Your task to perform on an android device: star an email in the gmail app Image 0: 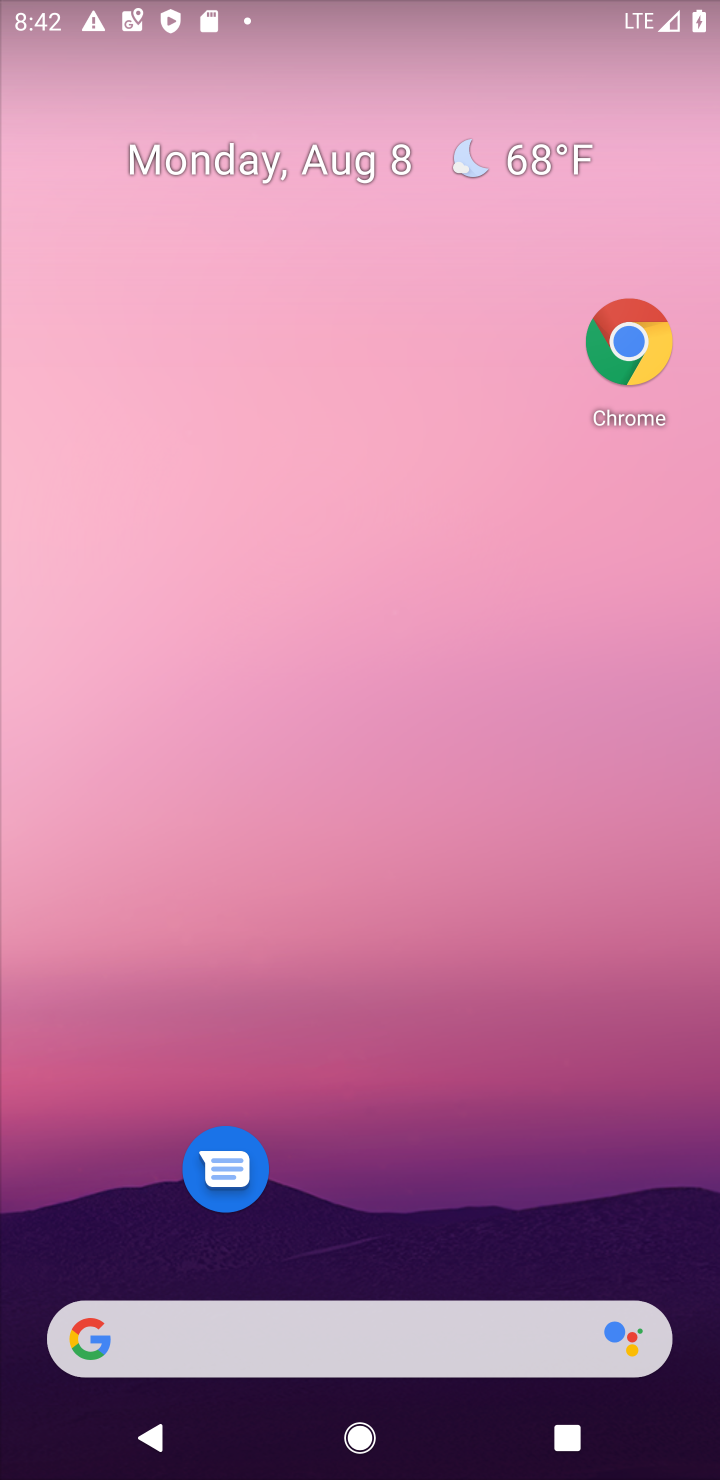
Step 0: drag from (344, 1102) to (344, 294)
Your task to perform on an android device: star an email in the gmail app Image 1: 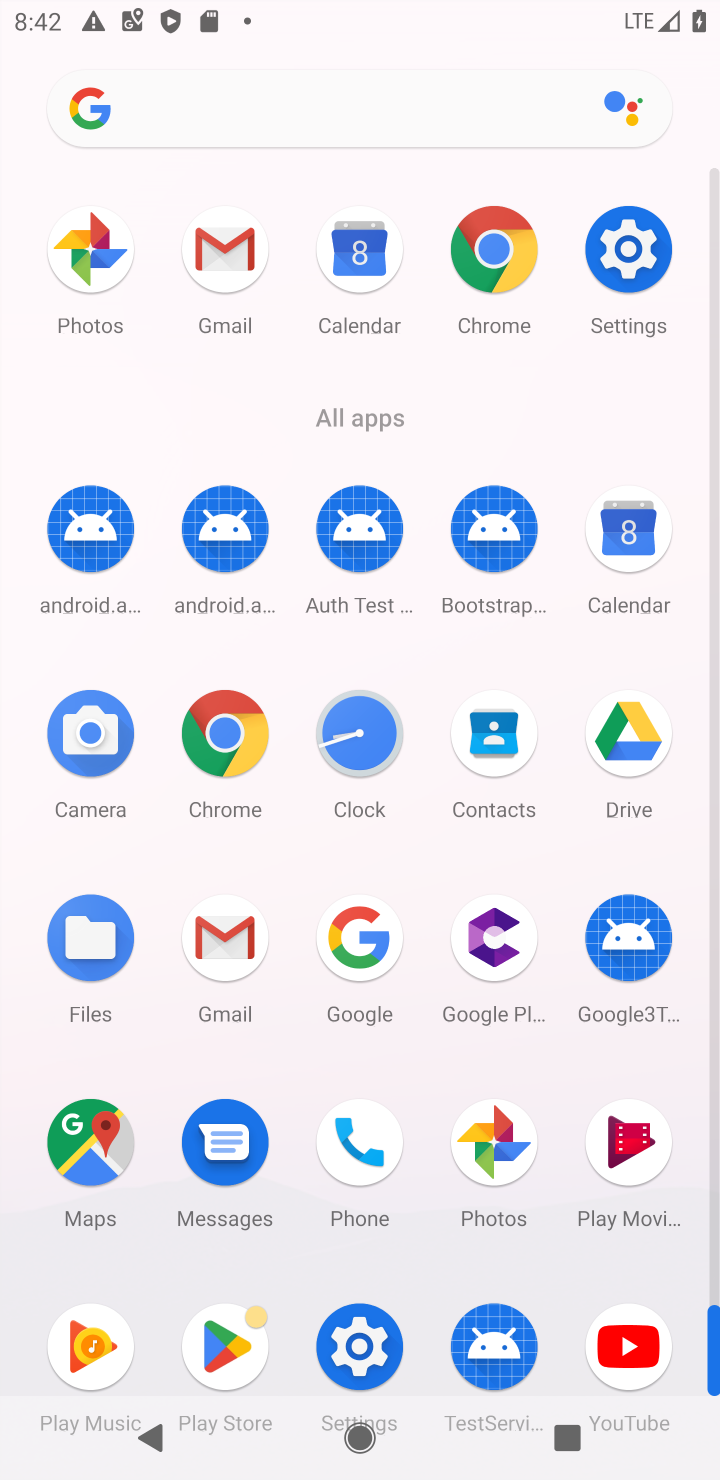
Step 1: click (212, 251)
Your task to perform on an android device: star an email in the gmail app Image 2: 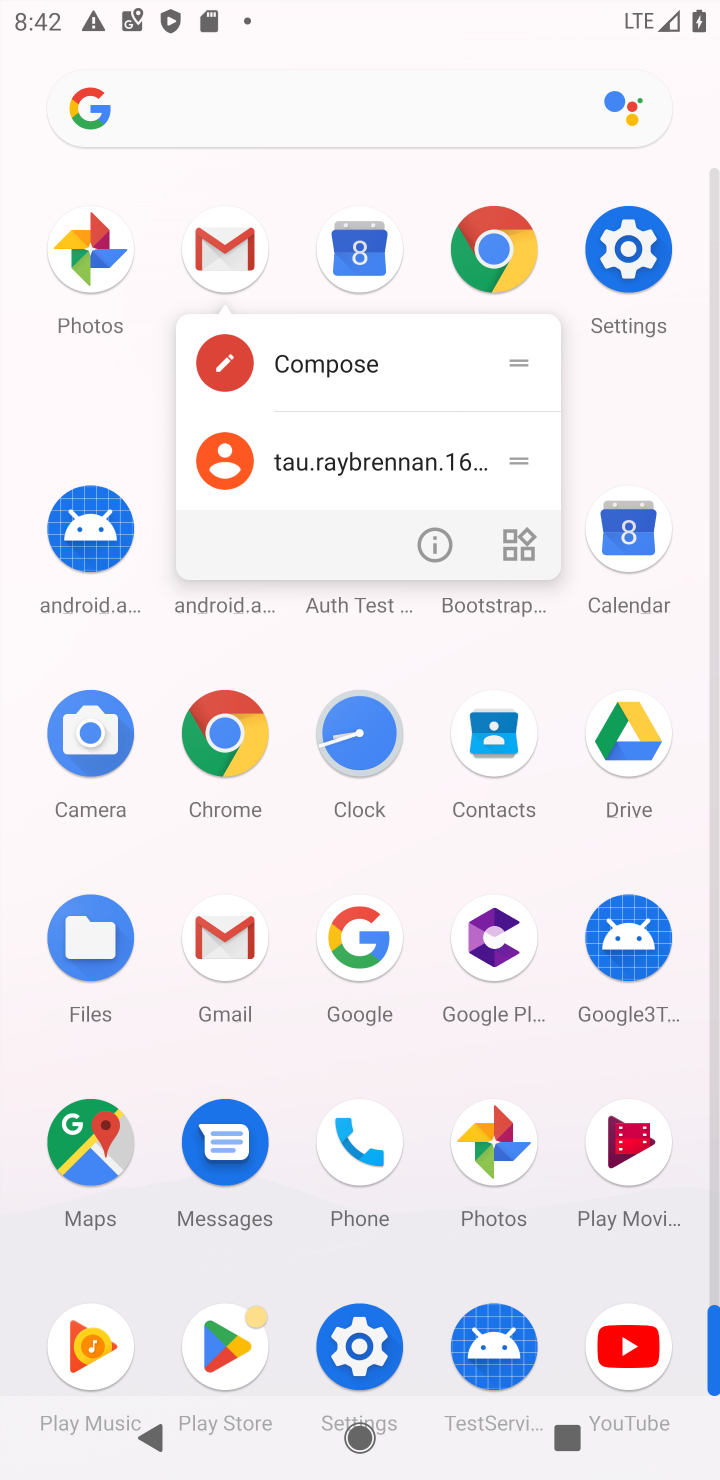
Step 2: click (223, 238)
Your task to perform on an android device: star an email in the gmail app Image 3: 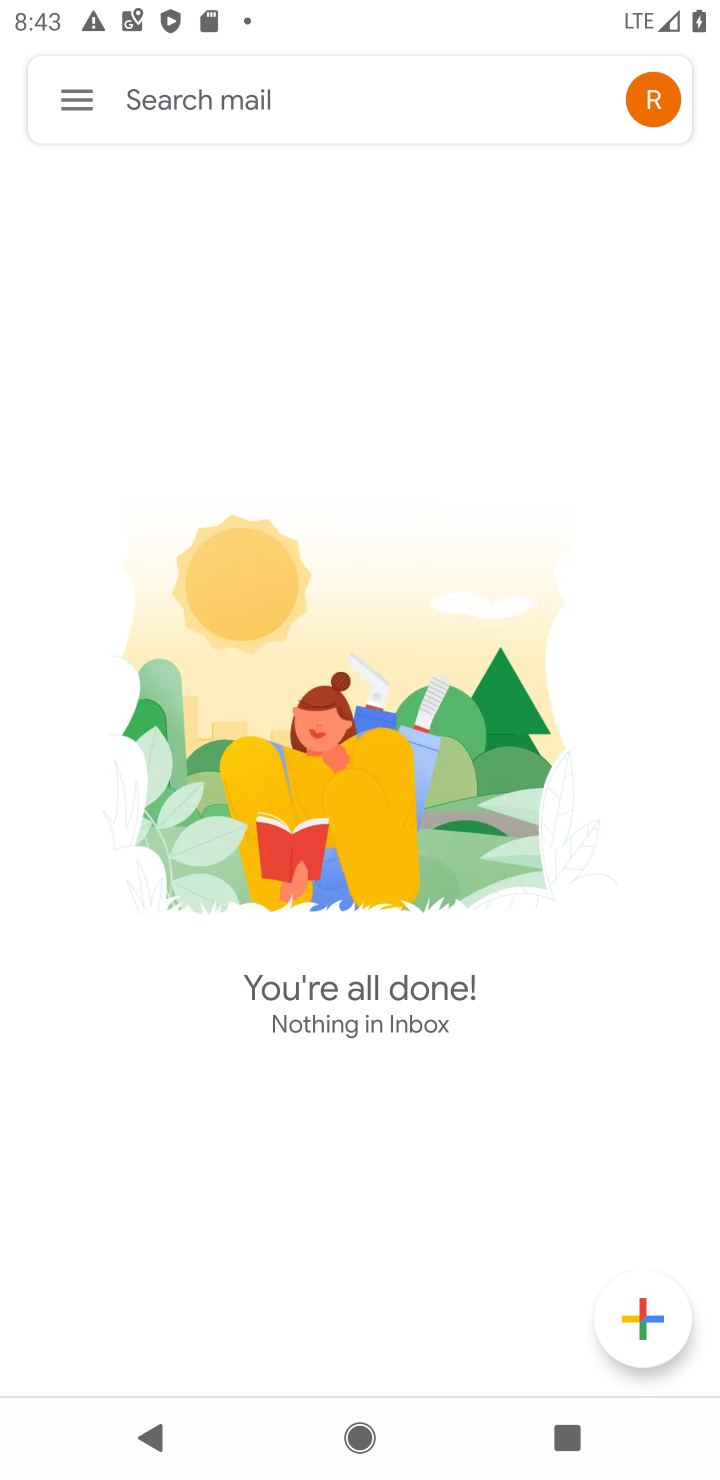
Step 3: click (81, 111)
Your task to perform on an android device: star an email in the gmail app Image 4: 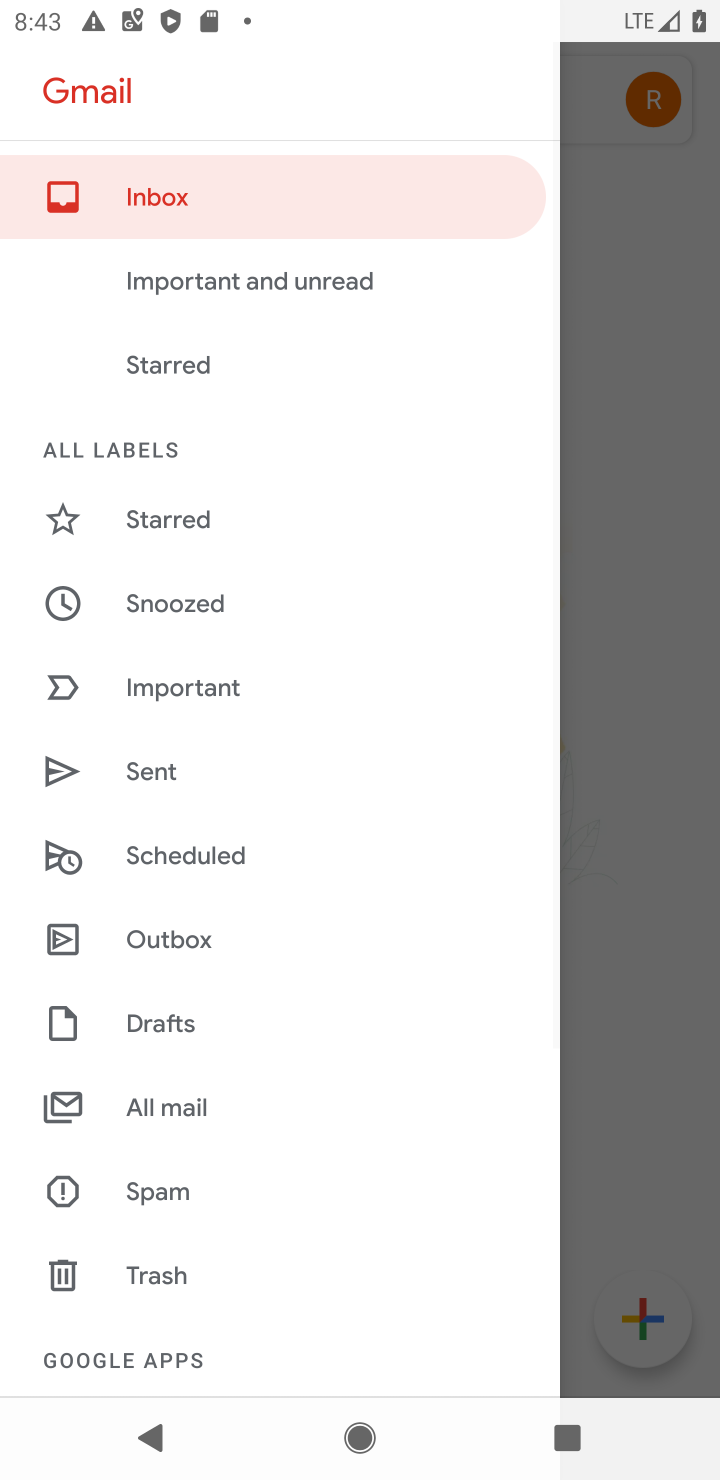
Step 4: click (176, 1111)
Your task to perform on an android device: star an email in the gmail app Image 5: 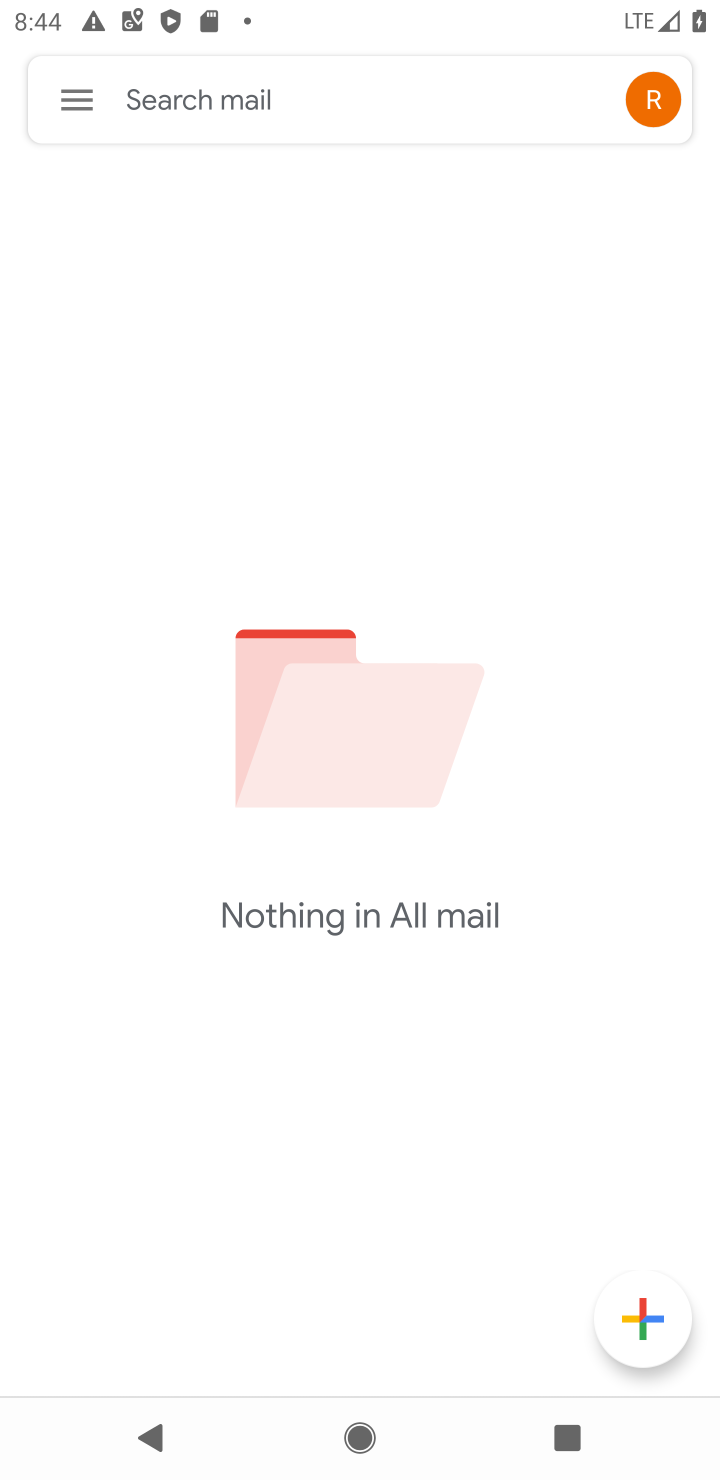
Step 5: task complete